Your task to perform on an android device: clear all cookies in the chrome app Image 0: 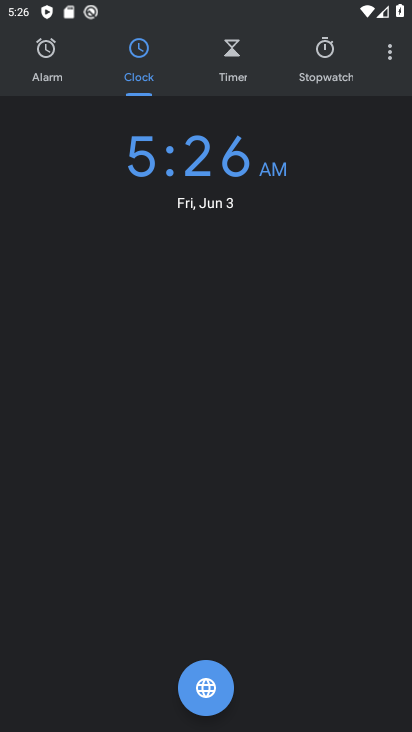
Step 0: press home button
Your task to perform on an android device: clear all cookies in the chrome app Image 1: 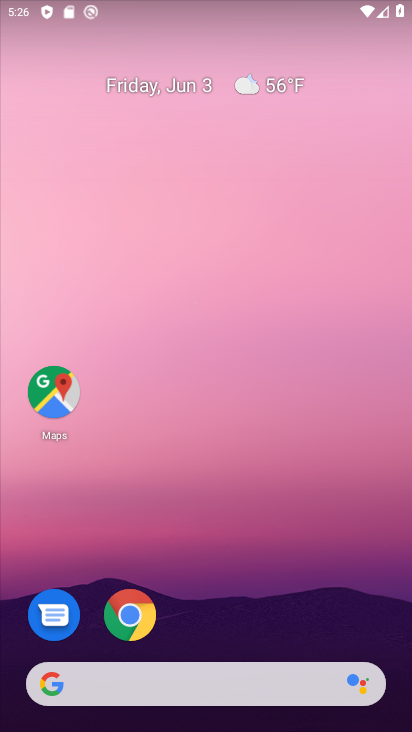
Step 1: click (130, 613)
Your task to perform on an android device: clear all cookies in the chrome app Image 2: 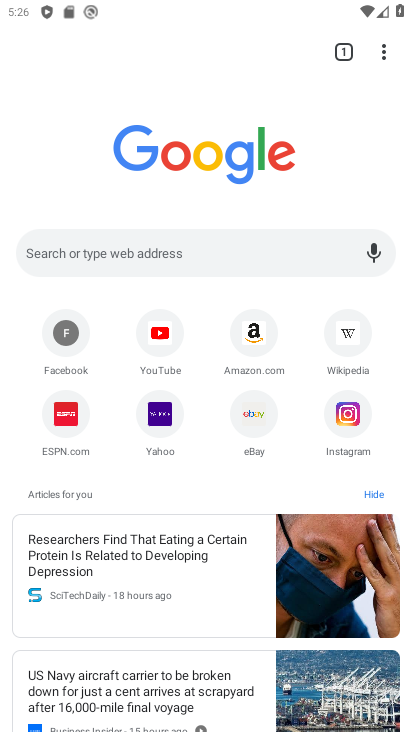
Step 2: click (385, 50)
Your task to perform on an android device: clear all cookies in the chrome app Image 3: 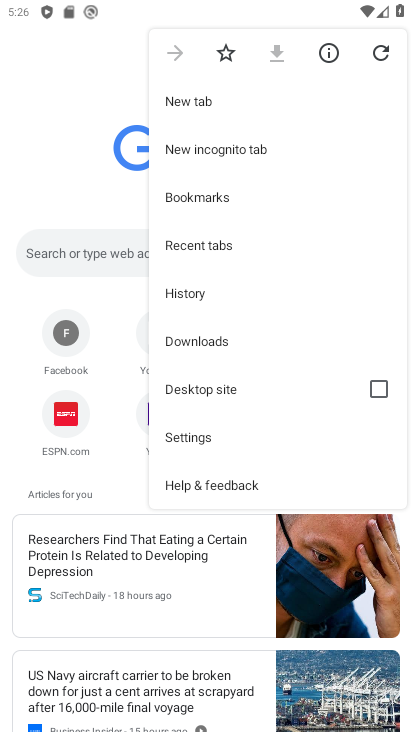
Step 3: click (201, 436)
Your task to perform on an android device: clear all cookies in the chrome app Image 4: 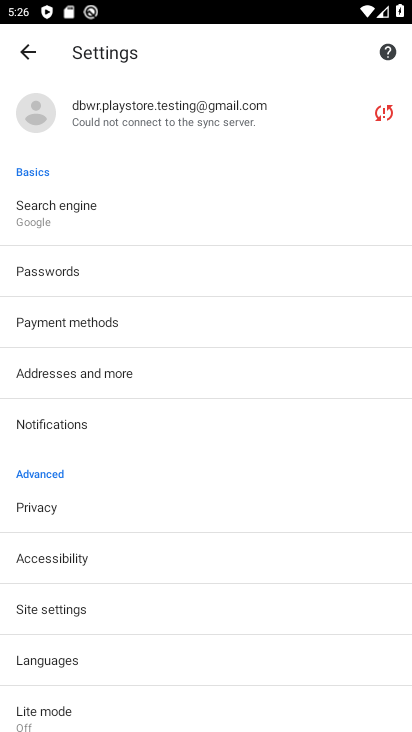
Step 4: drag from (88, 337) to (107, 253)
Your task to perform on an android device: clear all cookies in the chrome app Image 5: 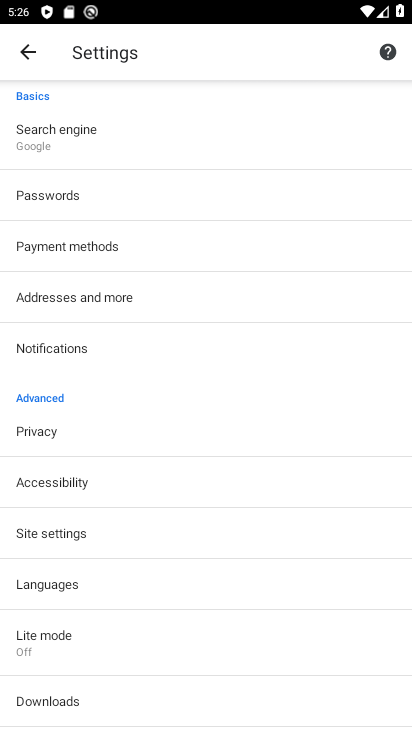
Step 5: click (35, 440)
Your task to perform on an android device: clear all cookies in the chrome app Image 6: 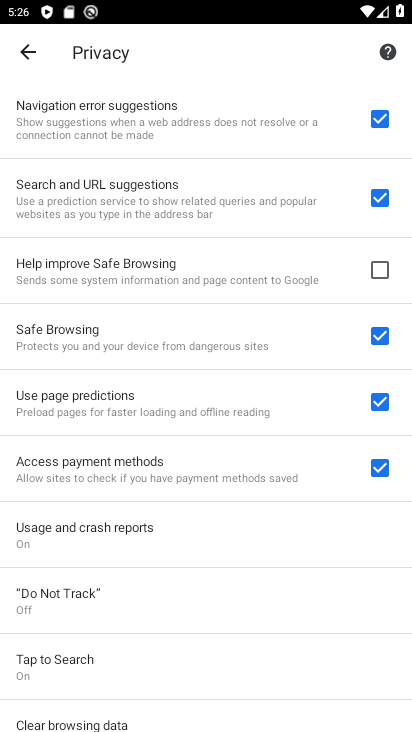
Step 6: drag from (119, 585) to (115, 473)
Your task to perform on an android device: clear all cookies in the chrome app Image 7: 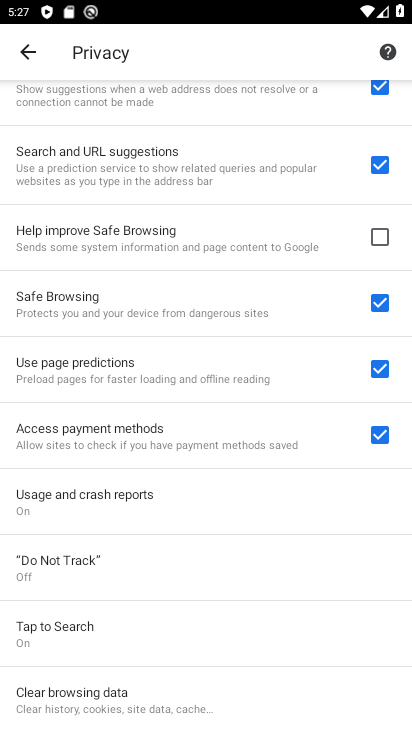
Step 7: click (105, 709)
Your task to perform on an android device: clear all cookies in the chrome app Image 8: 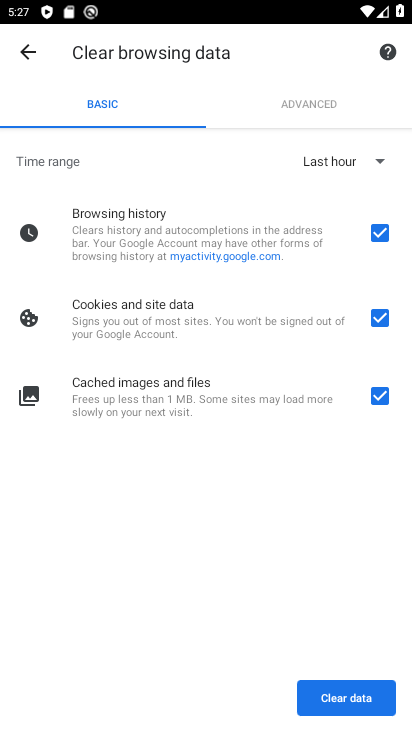
Step 8: click (380, 237)
Your task to perform on an android device: clear all cookies in the chrome app Image 9: 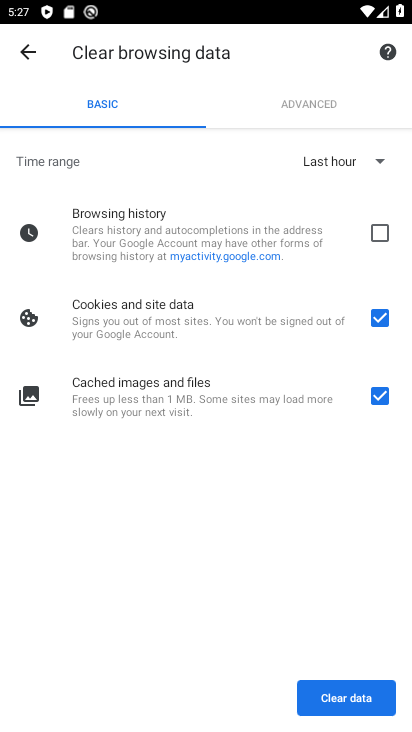
Step 9: click (374, 404)
Your task to perform on an android device: clear all cookies in the chrome app Image 10: 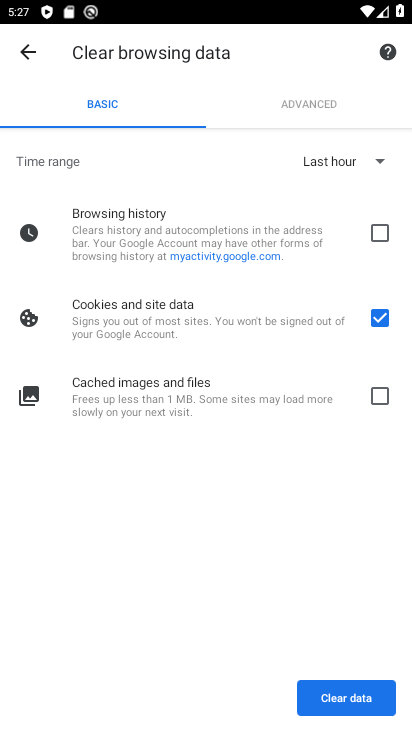
Step 10: click (332, 158)
Your task to perform on an android device: clear all cookies in the chrome app Image 11: 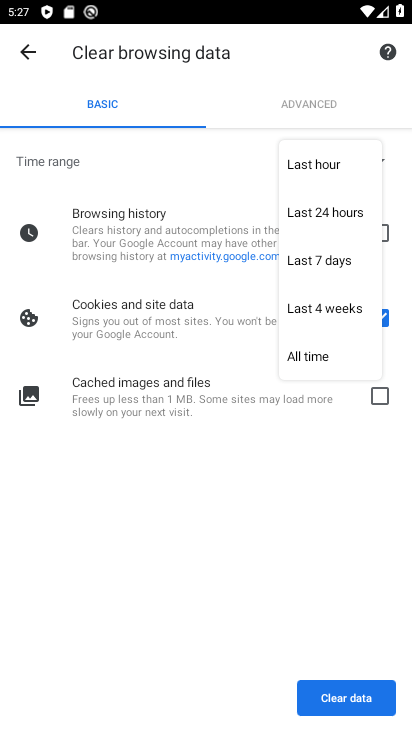
Step 11: click (323, 350)
Your task to perform on an android device: clear all cookies in the chrome app Image 12: 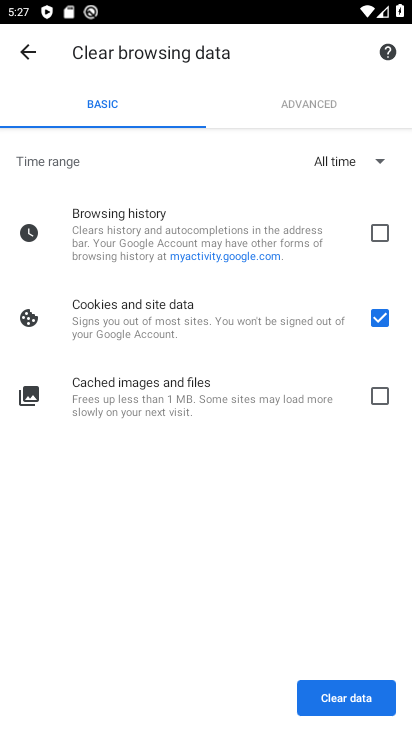
Step 12: click (339, 687)
Your task to perform on an android device: clear all cookies in the chrome app Image 13: 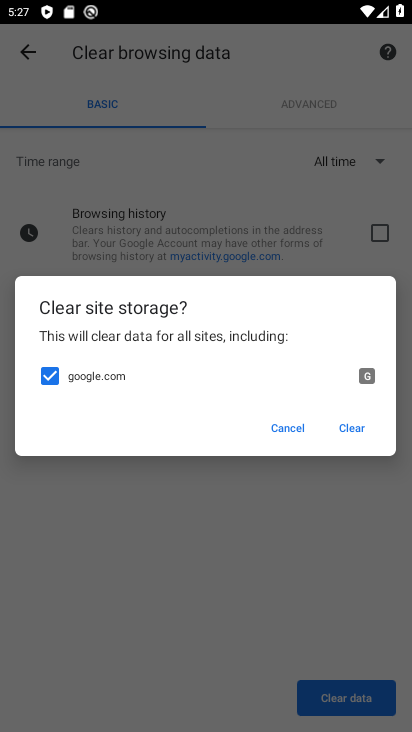
Step 13: click (359, 430)
Your task to perform on an android device: clear all cookies in the chrome app Image 14: 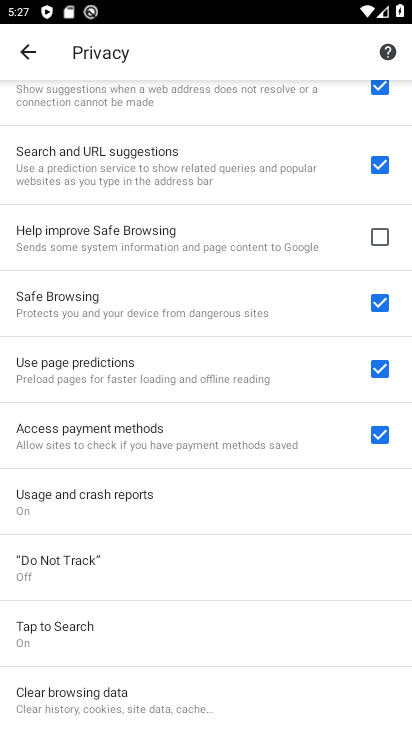
Step 14: task complete